Your task to perform on an android device: open app "Spotify: Music and Podcasts" (install if not already installed) and enter user name: "principled@inbox.com" and password: "arrests" Image 0: 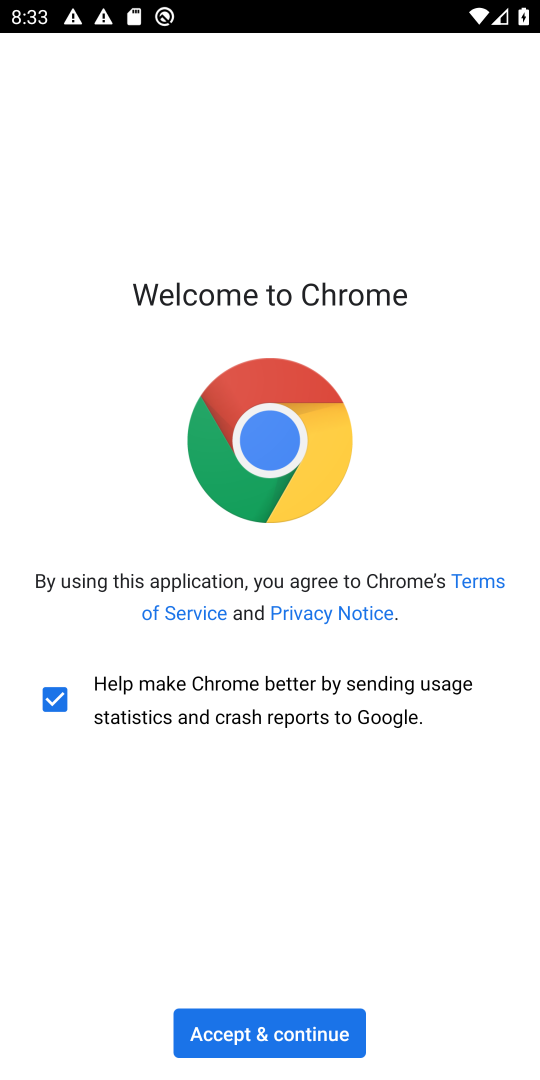
Step 0: press home button
Your task to perform on an android device: open app "Spotify: Music and Podcasts" (install if not already installed) and enter user name: "principled@inbox.com" and password: "arrests" Image 1: 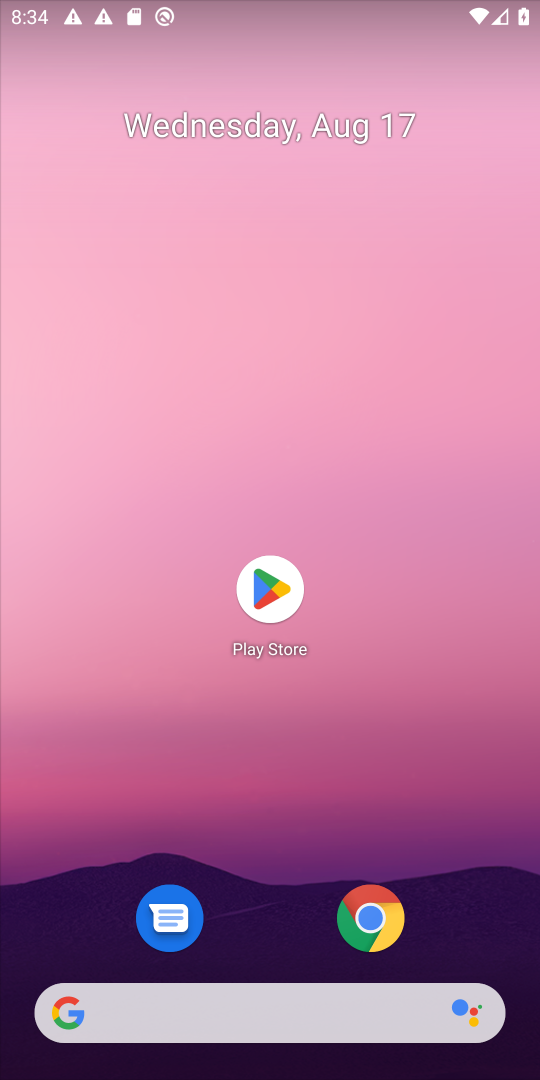
Step 1: click (269, 581)
Your task to perform on an android device: open app "Spotify: Music and Podcasts" (install if not already installed) and enter user name: "principled@inbox.com" and password: "arrests" Image 2: 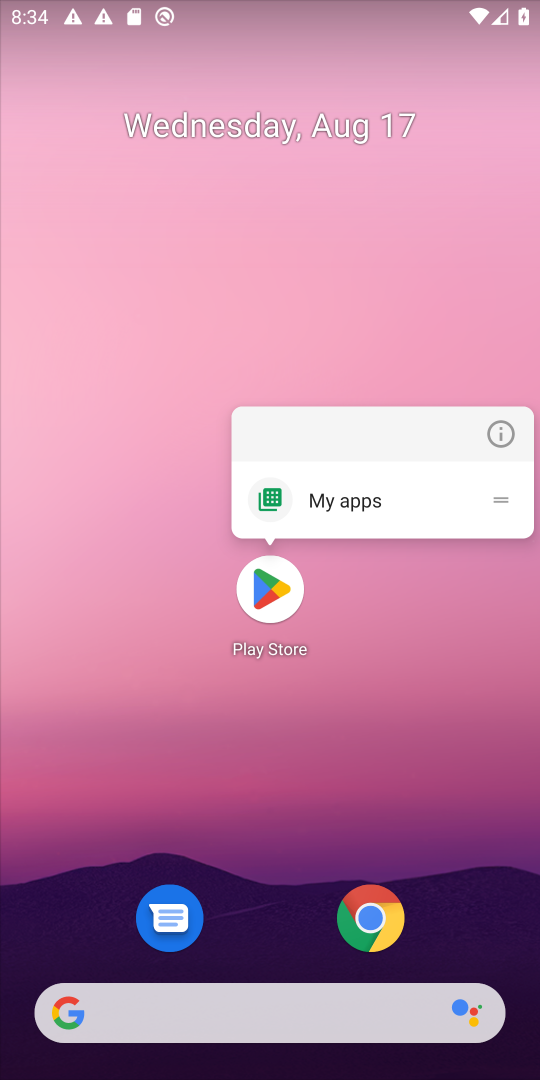
Step 2: click (278, 592)
Your task to perform on an android device: open app "Spotify: Music and Podcasts" (install if not already installed) and enter user name: "principled@inbox.com" and password: "arrests" Image 3: 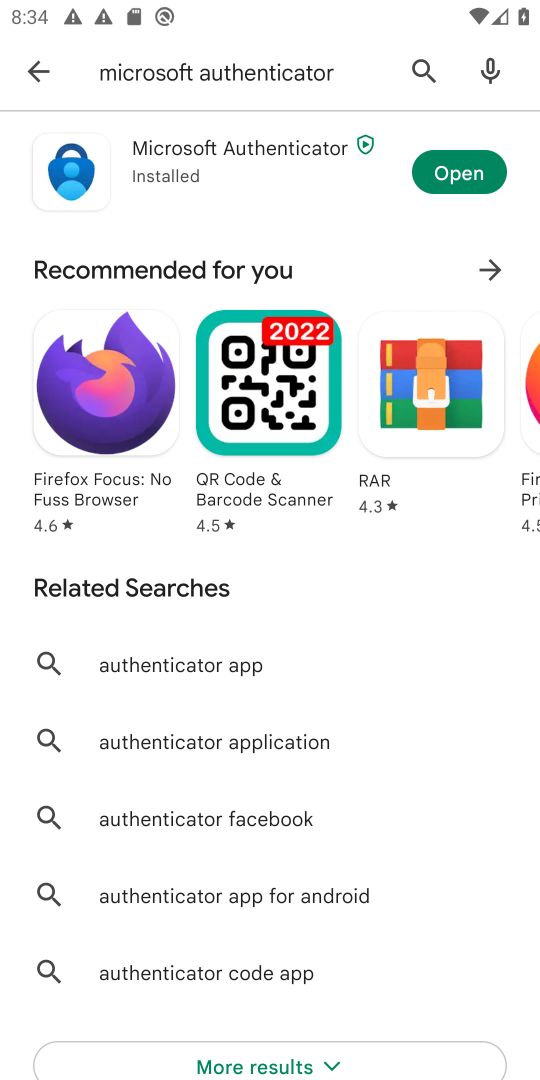
Step 3: click (424, 66)
Your task to perform on an android device: open app "Spotify: Music and Podcasts" (install if not already installed) and enter user name: "principled@inbox.com" and password: "arrests" Image 4: 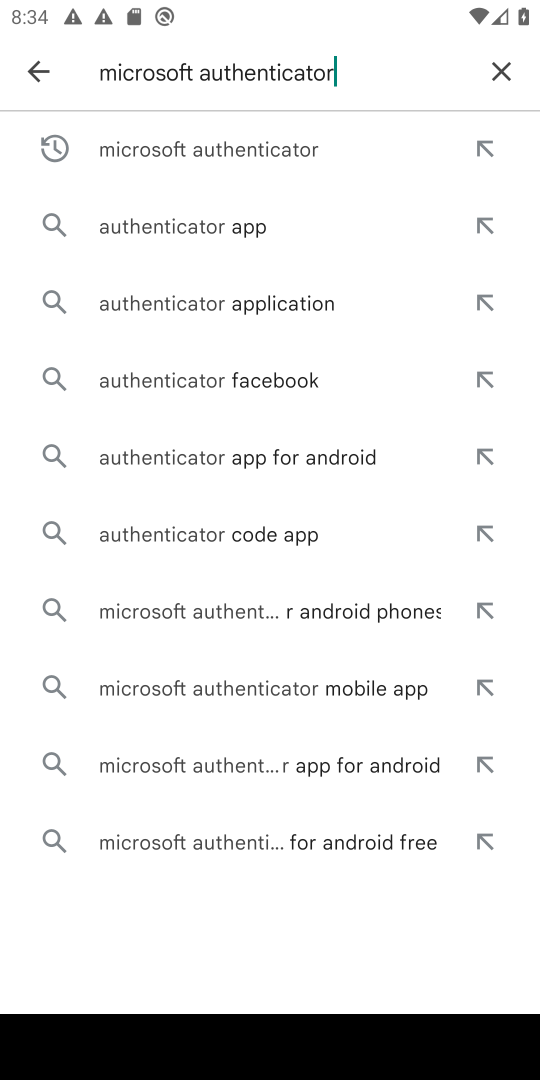
Step 4: click (502, 62)
Your task to perform on an android device: open app "Spotify: Music and Podcasts" (install if not already installed) and enter user name: "principled@inbox.com" and password: "arrests" Image 5: 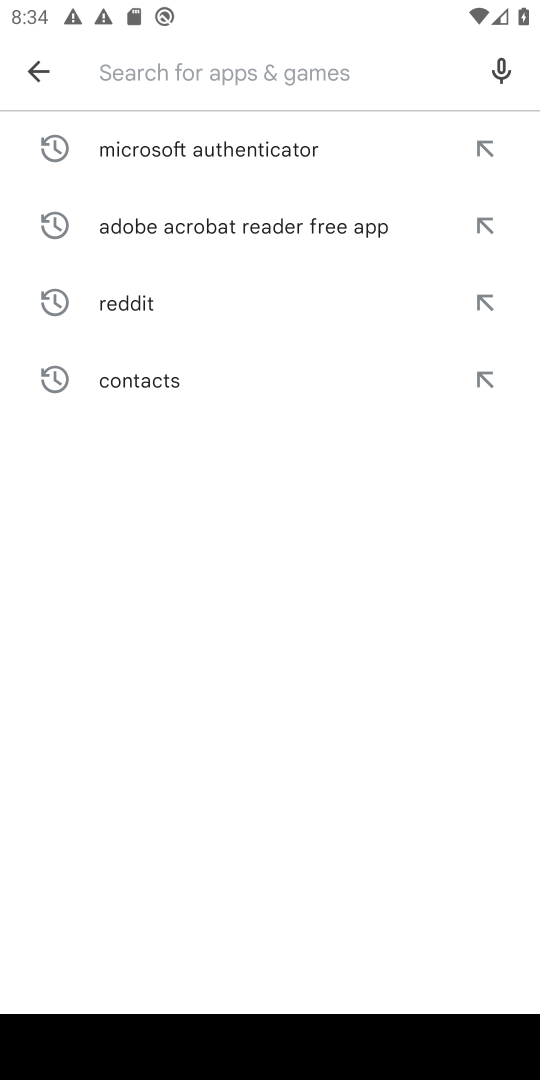
Step 5: type "Spotify: Music and Podcasts"
Your task to perform on an android device: open app "Spotify: Music and Podcasts" (install if not already installed) and enter user name: "principled@inbox.com" and password: "arrests" Image 6: 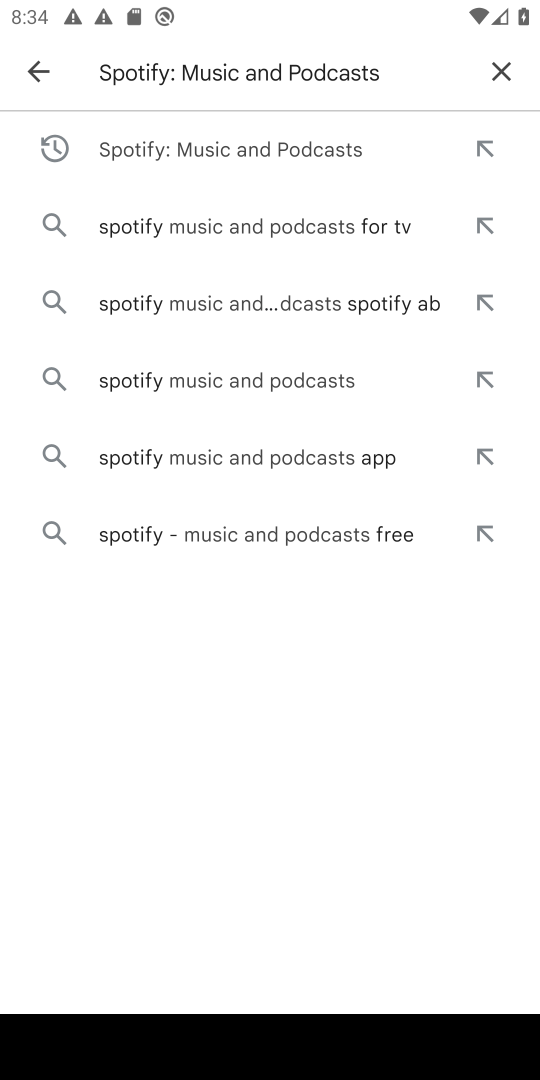
Step 6: click (328, 153)
Your task to perform on an android device: open app "Spotify: Music and Podcasts" (install if not already installed) and enter user name: "principled@inbox.com" and password: "arrests" Image 7: 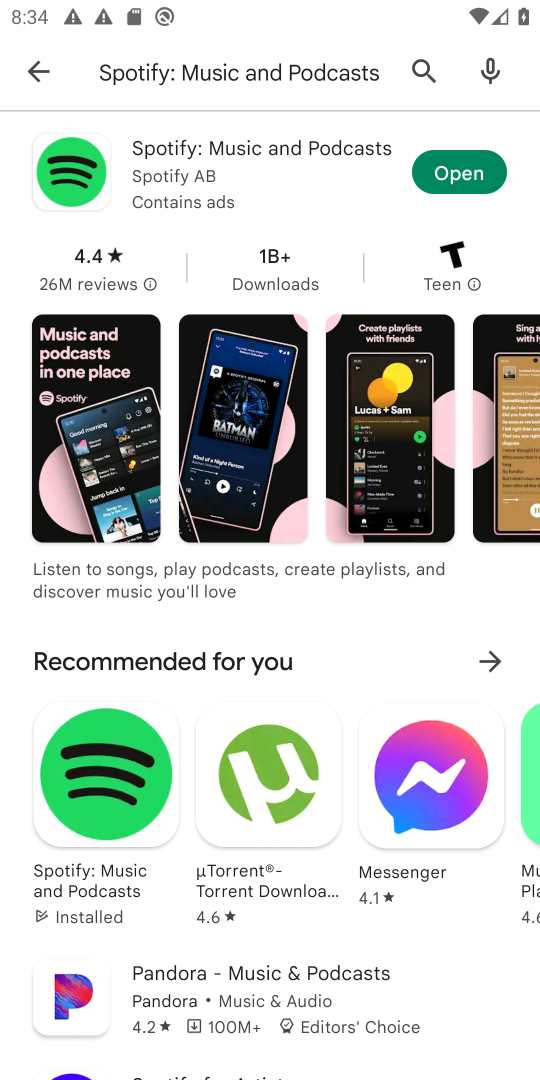
Step 7: click (453, 174)
Your task to perform on an android device: open app "Spotify: Music and Podcasts" (install if not already installed) and enter user name: "principled@inbox.com" and password: "arrests" Image 8: 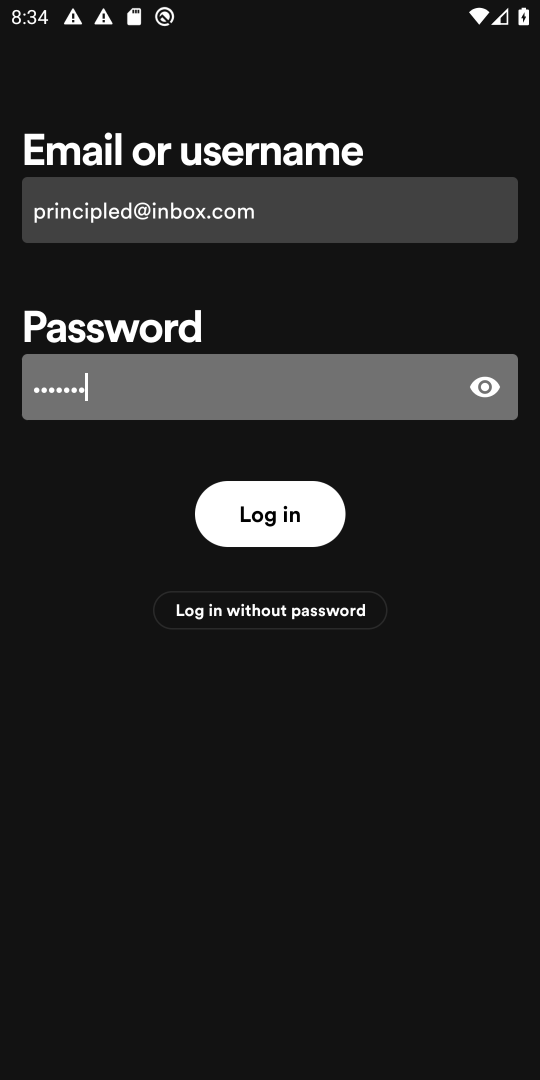
Step 8: click (486, 382)
Your task to perform on an android device: open app "Spotify: Music and Podcasts" (install if not already installed) and enter user name: "principled@inbox.com" and password: "arrests" Image 9: 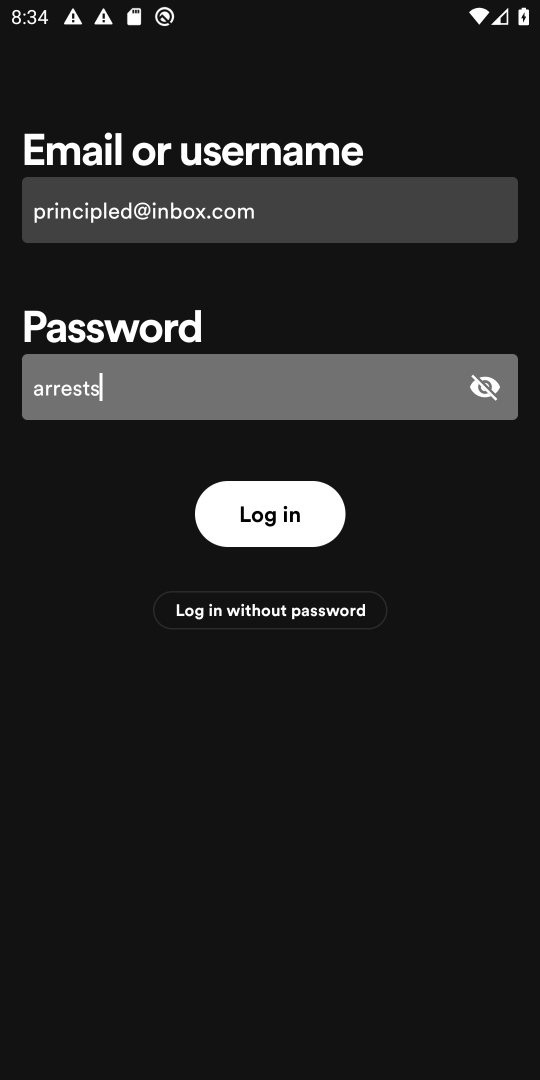
Step 9: click (486, 382)
Your task to perform on an android device: open app "Spotify: Music and Podcasts" (install if not already installed) and enter user name: "principled@inbox.com" and password: "arrests" Image 10: 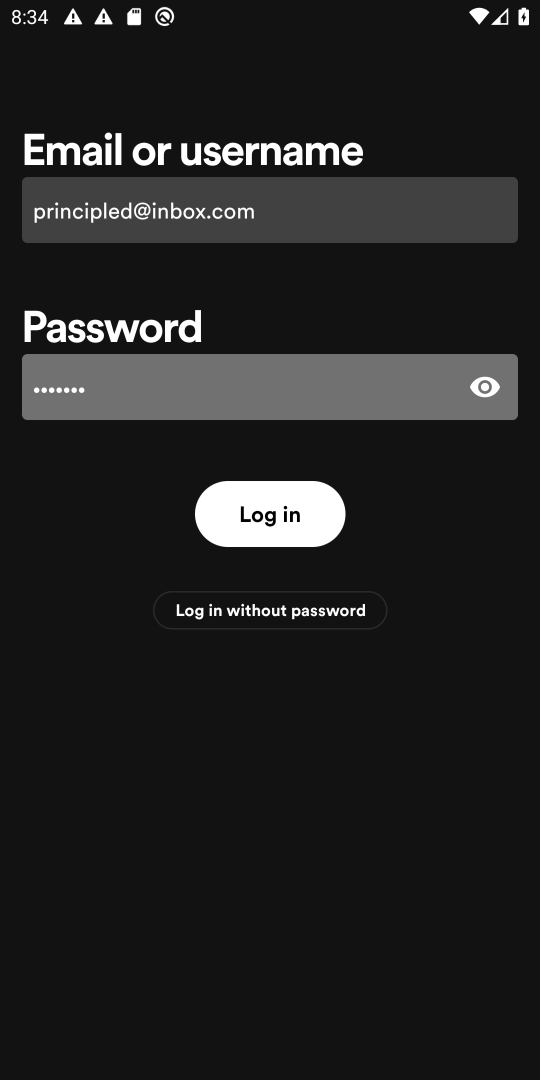
Step 10: task complete